Your task to perform on an android device: Go to Amazon Image 0: 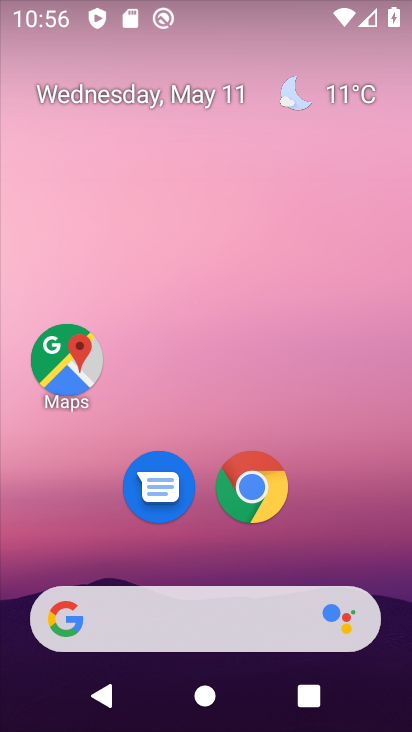
Step 0: click (289, 489)
Your task to perform on an android device: Go to Amazon Image 1: 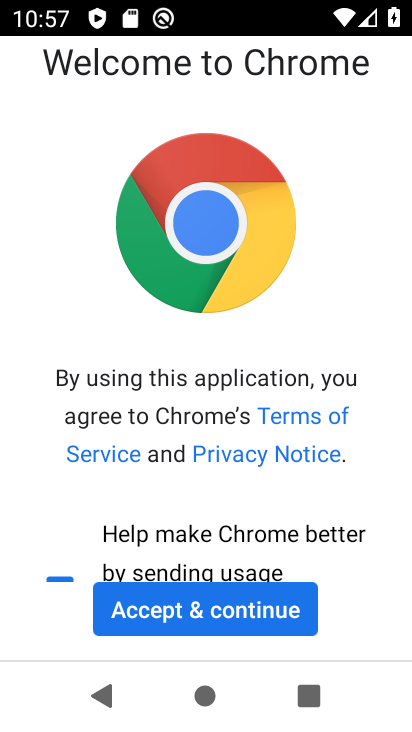
Step 1: click (218, 610)
Your task to perform on an android device: Go to Amazon Image 2: 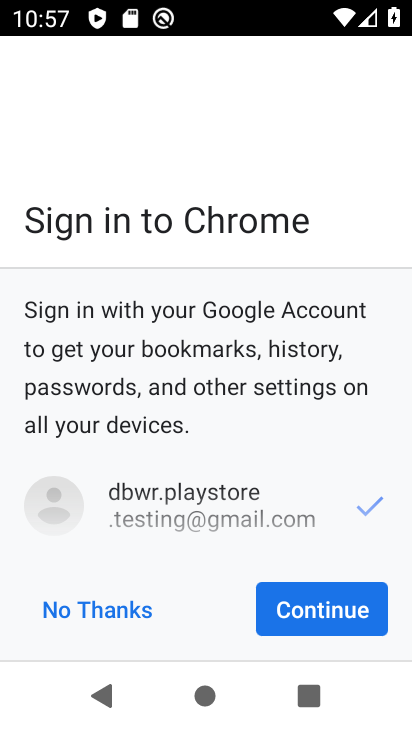
Step 2: click (302, 607)
Your task to perform on an android device: Go to Amazon Image 3: 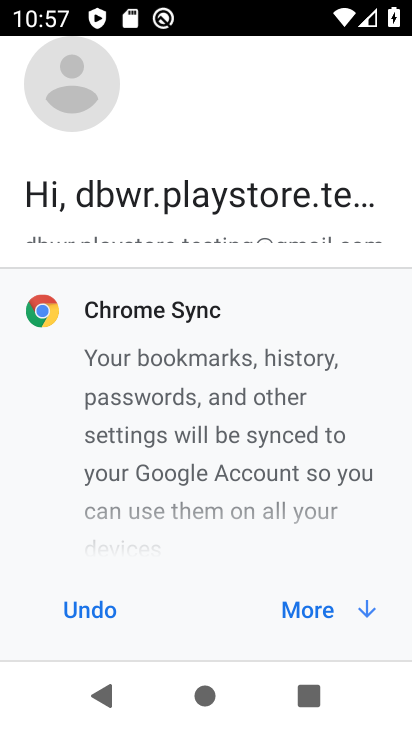
Step 3: click (288, 605)
Your task to perform on an android device: Go to Amazon Image 4: 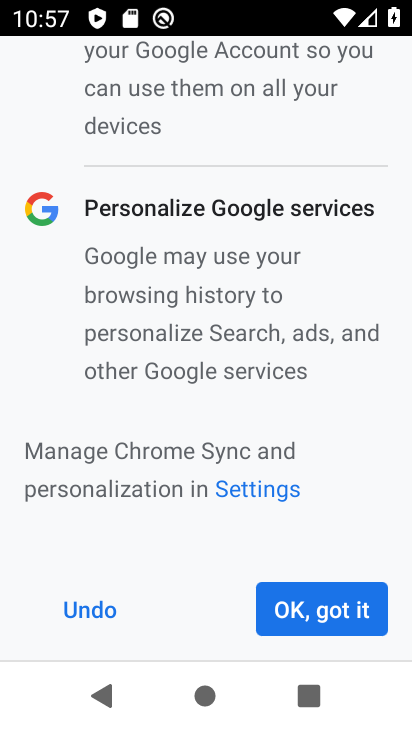
Step 4: click (354, 605)
Your task to perform on an android device: Go to Amazon Image 5: 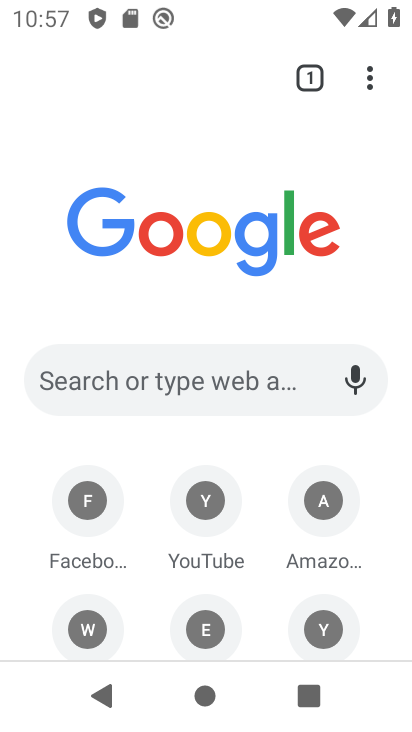
Step 5: click (177, 390)
Your task to perform on an android device: Go to Amazon Image 6: 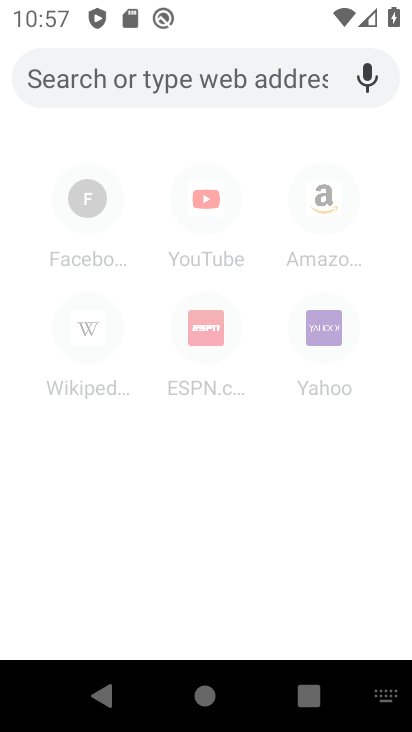
Step 6: type "Amazon"
Your task to perform on an android device: Go to Amazon Image 7: 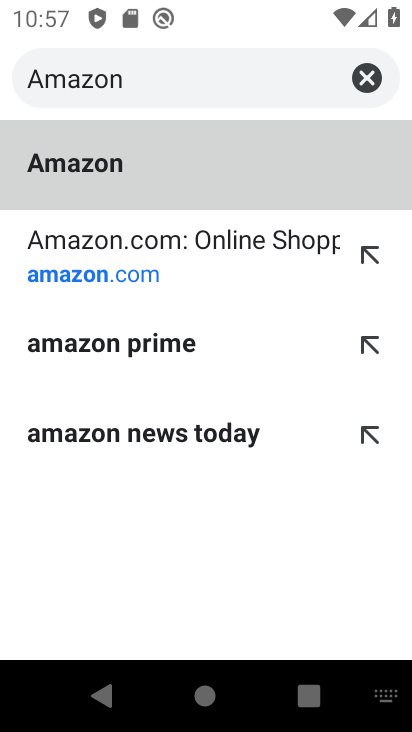
Step 7: click (66, 185)
Your task to perform on an android device: Go to Amazon Image 8: 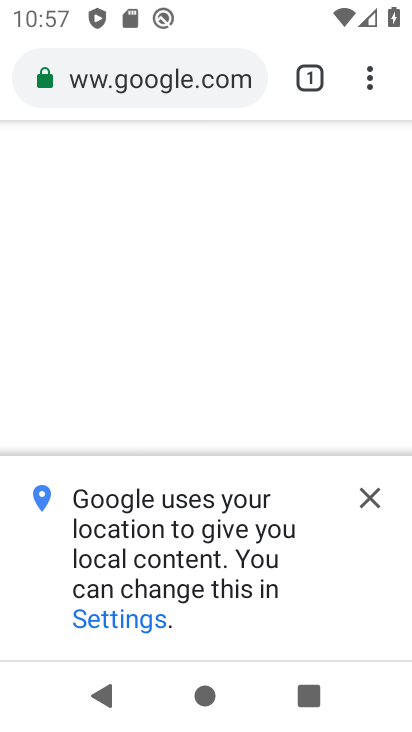
Step 8: click (374, 495)
Your task to perform on an android device: Go to Amazon Image 9: 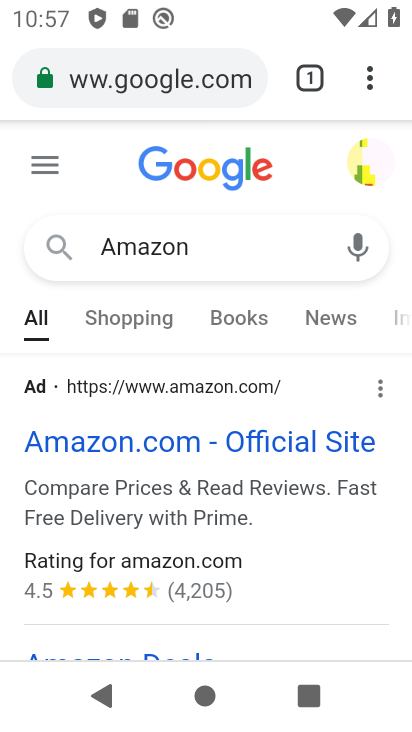
Step 9: click (191, 444)
Your task to perform on an android device: Go to Amazon Image 10: 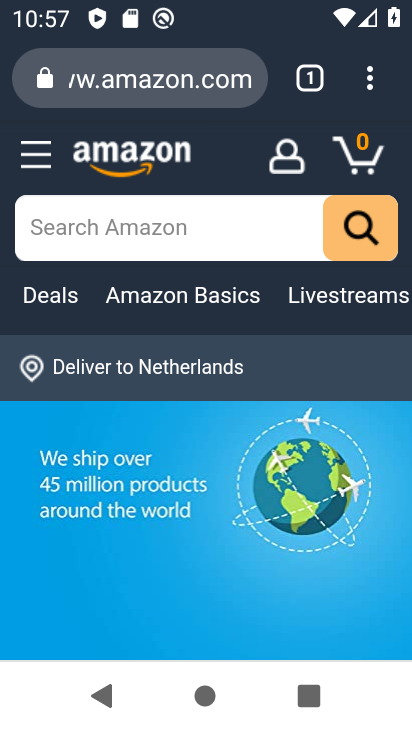
Step 10: task complete